Your task to perform on an android device: turn off data saver in the chrome app Image 0: 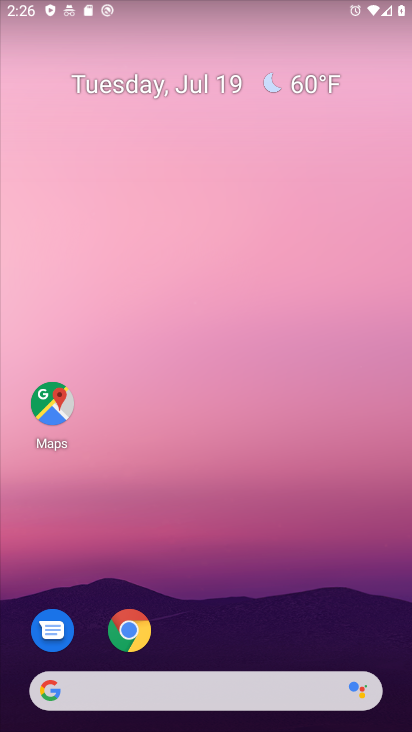
Step 0: click (253, 73)
Your task to perform on an android device: turn off data saver in the chrome app Image 1: 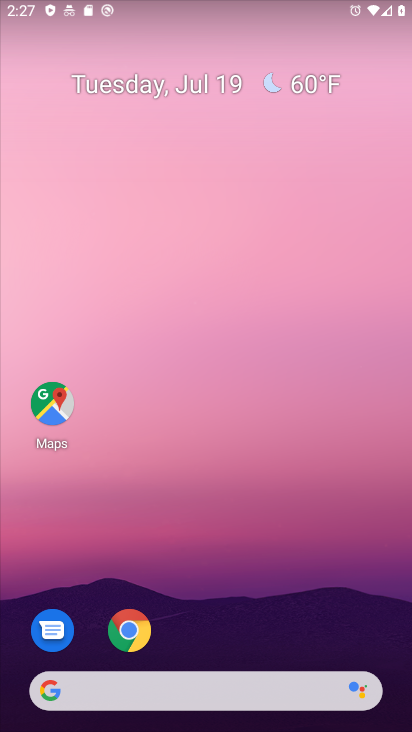
Step 1: drag from (166, 600) to (160, 225)
Your task to perform on an android device: turn off data saver in the chrome app Image 2: 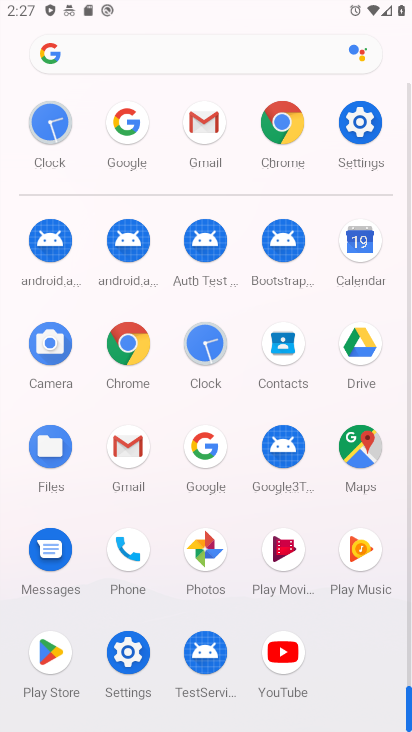
Step 2: click (283, 107)
Your task to perform on an android device: turn off data saver in the chrome app Image 3: 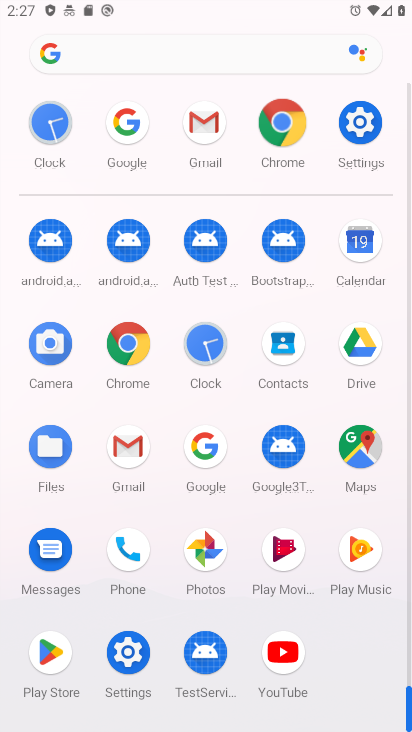
Step 3: click (306, 146)
Your task to perform on an android device: turn off data saver in the chrome app Image 4: 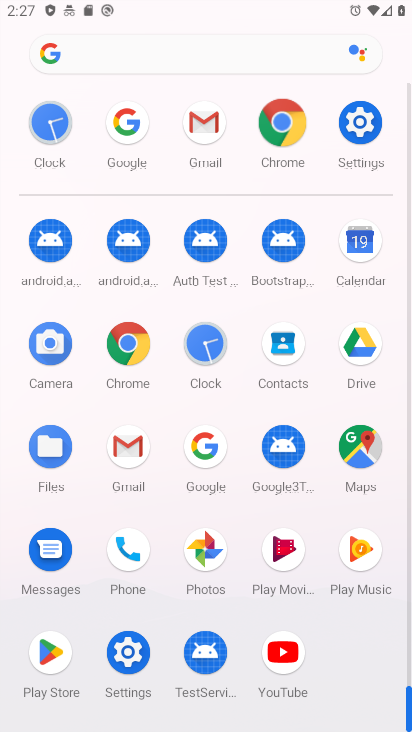
Step 4: click (283, 129)
Your task to perform on an android device: turn off data saver in the chrome app Image 5: 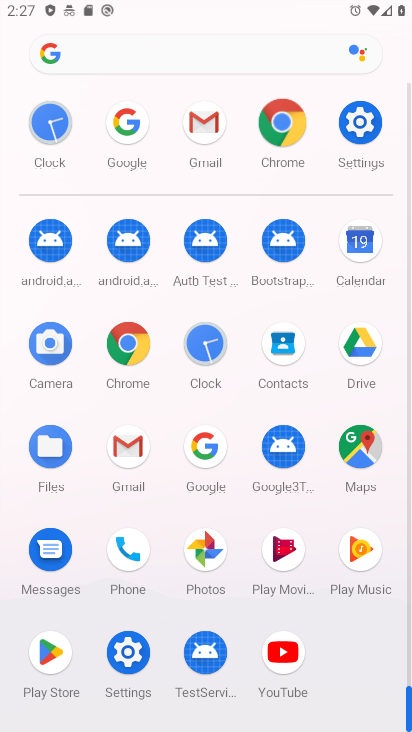
Step 5: click (285, 127)
Your task to perform on an android device: turn off data saver in the chrome app Image 6: 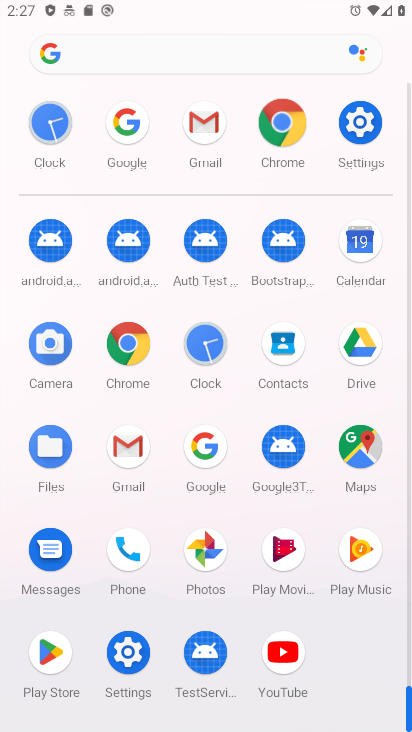
Step 6: click (281, 123)
Your task to perform on an android device: turn off data saver in the chrome app Image 7: 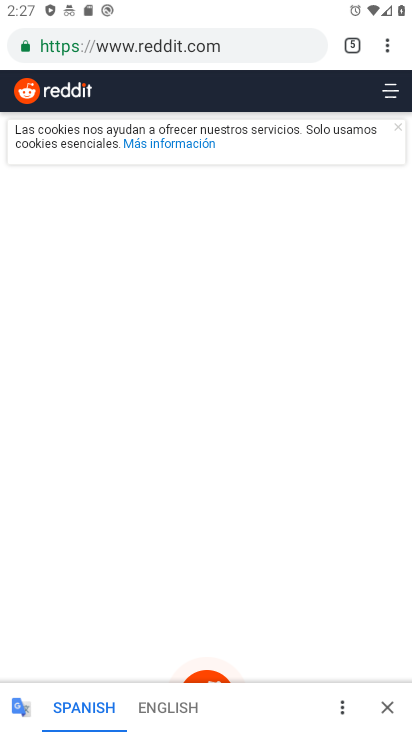
Step 7: drag from (384, 41) to (340, 131)
Your task to perform on an android device: turn off data saver in the chrome app Image 8: 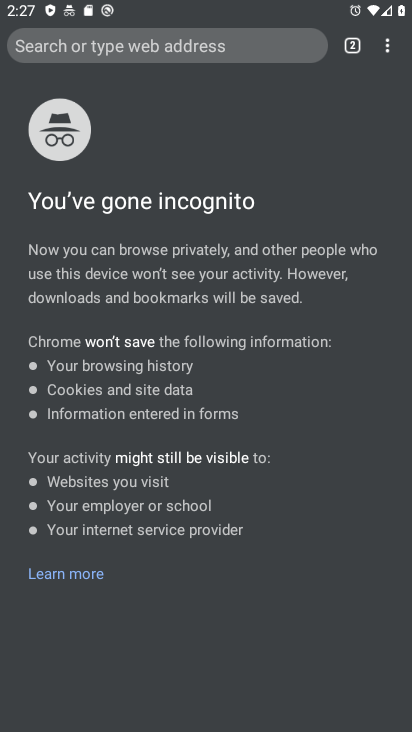
Step 8: drag from (387, 46) to (219, 333)
Your task to perform on an android device: turn off data saver in the chrome app Image 9: 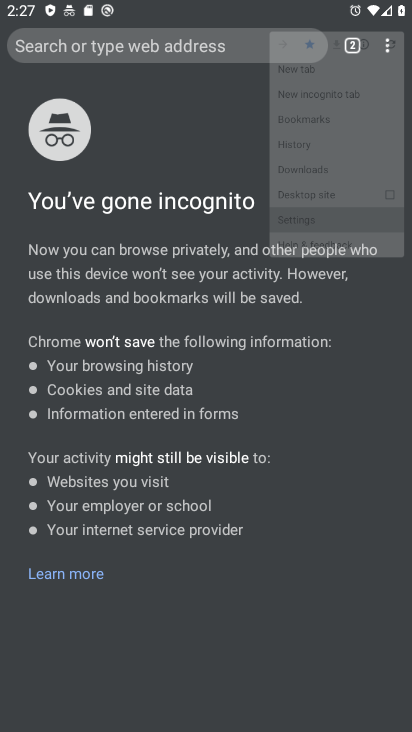
Step 9: click (228, 343)
Your task to perform on an android device: turn off data saver in the chrome app Image 10: 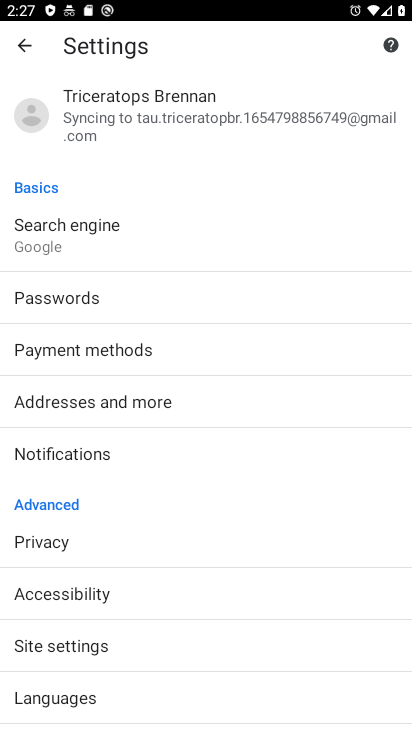
Step 10: drag from (119, 504) to (117, 222)
Your task to perform on an android device: turn off data saver in the chrome app Image 11: 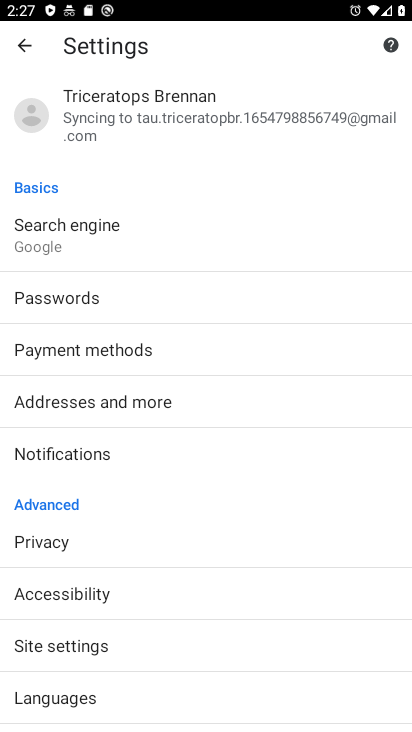
Step 11: drag from (106, 436) to (106, 271)
Your task to perform on an android device: turn off data saver in the chrome app Image 12: 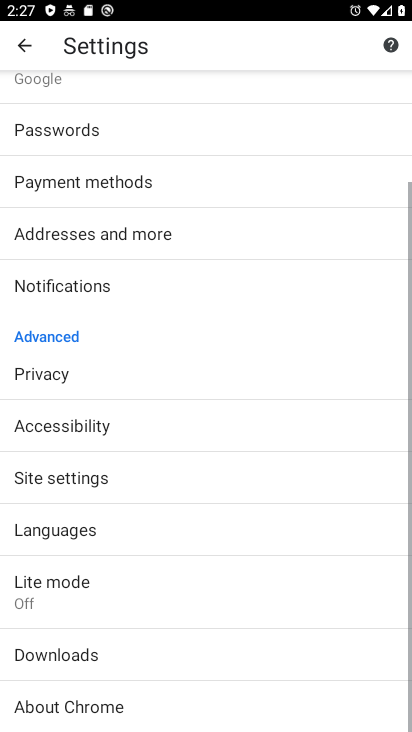
Step 12: click (97, 324)
Your task to perform on an android device: turn off data saver in the chrome app Image 13: 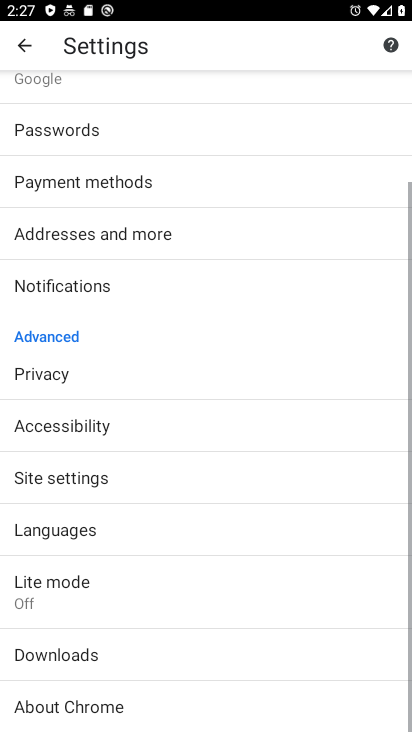
Step 13: click (51, 305)
Your task to perform on an android device: turn off data saver in the chrome app Image 14: 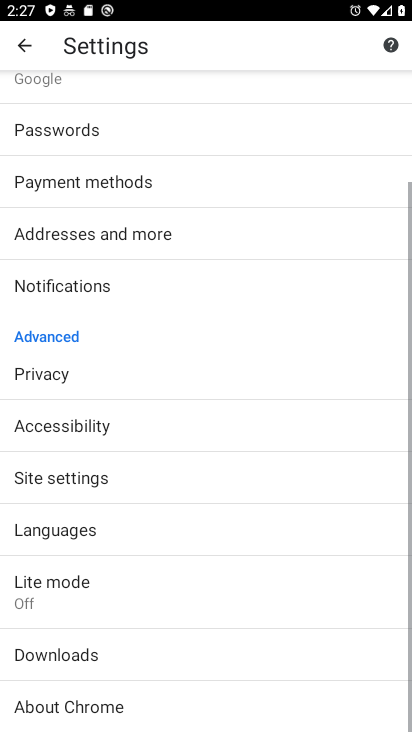
Step 14: click (65, 586)
Your task to perform on an android device: turn off data saver in the chrome app Image 15: 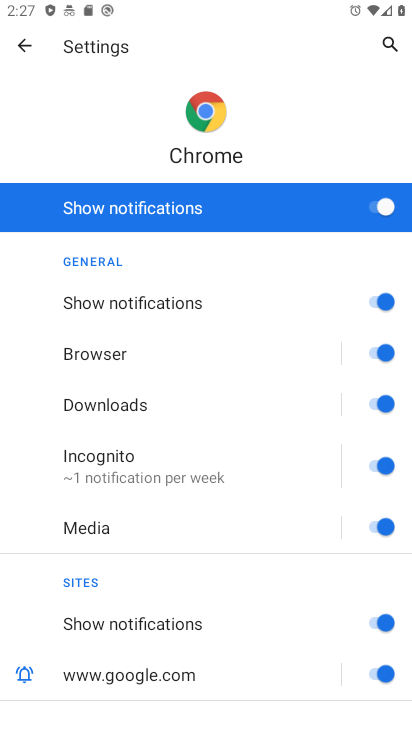
Step 15: drag from (212, 286) to (205, 50)
Your task to perform on an android device: turn off data saver in the chrome app Image 16: 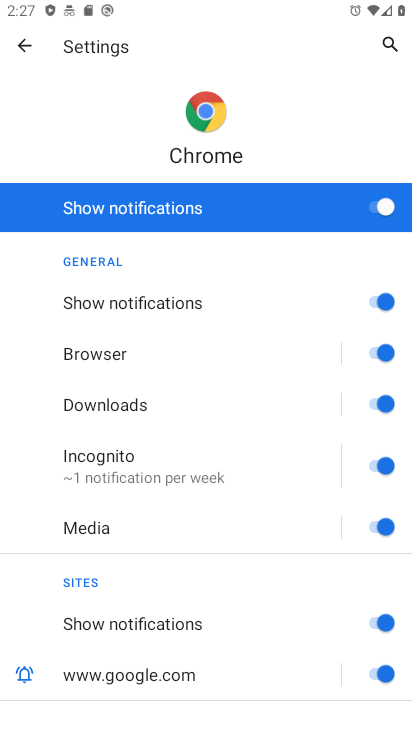
Step 16: drag from (245, 424) to (198, 143)
Your task to perform on an android device: turn off data saver in the chrome app Image 17: 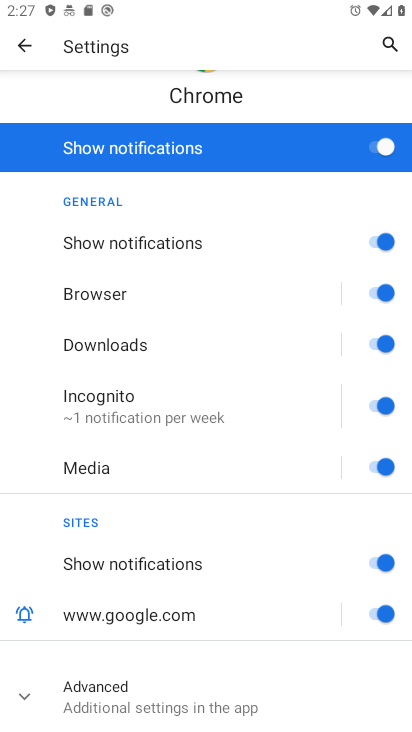
Step 17: drag from (138, 299) to (139, 198)
Your task to perform on an android device: turn off data saver in the chrome app Image 18: 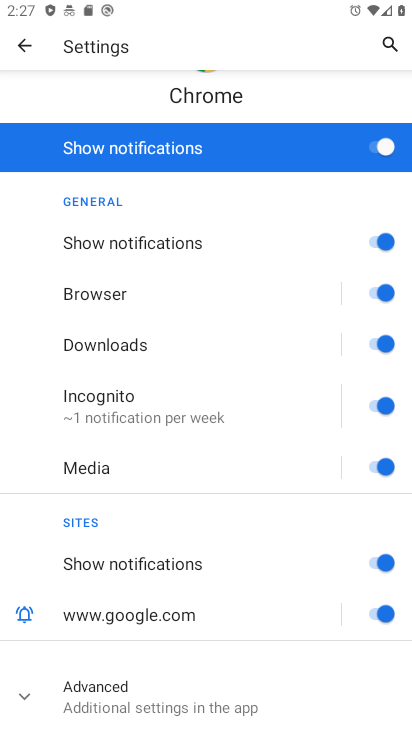
Step 18: click (15, 40)
Your task to perform on an android device: turn off data saver in the chrome app Image 19: 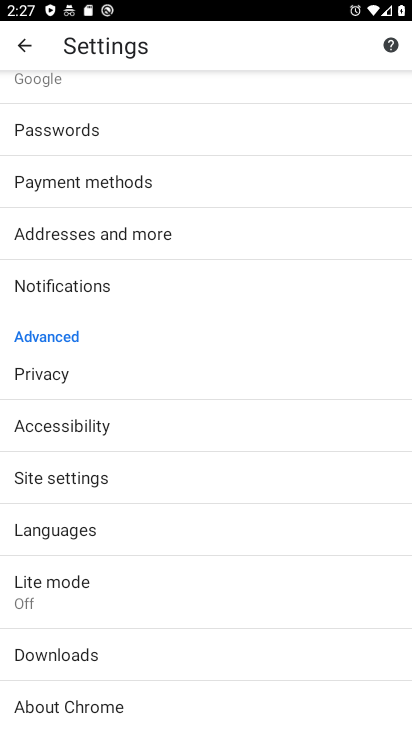
Step 19: click (49, 566)
Your task to perform on an android device: turn off data saver in the chrome app Image 20: 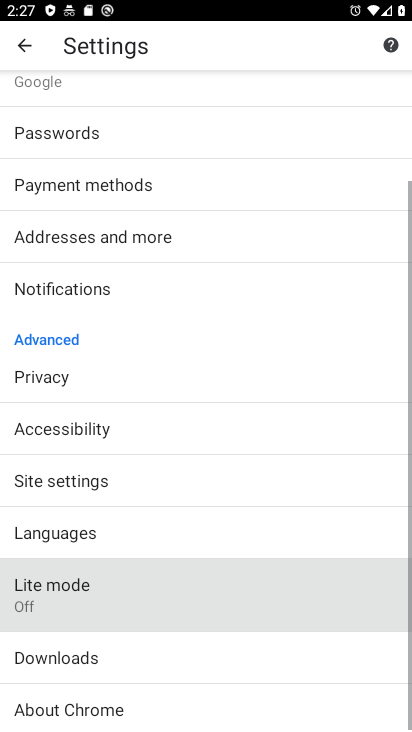
Step 20: click (54, 573)
Your task to perform on an android device: turn off data saver in the chrome app Image 21: 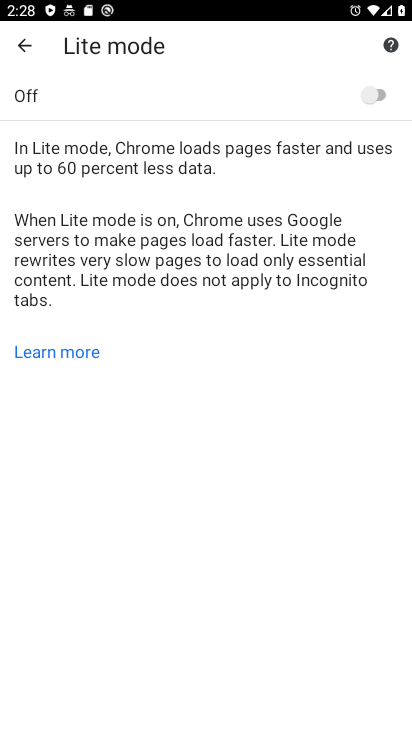
Step 21: task complete